Your task to perform on an android device: Go to settings Image 0: 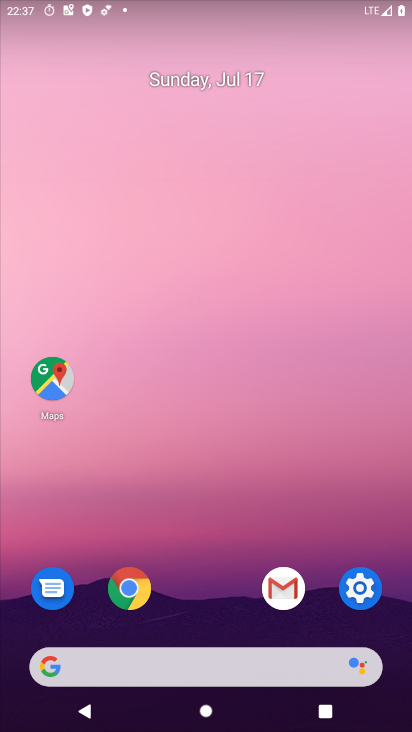
Step 0: click (365, 594)
Your task to perform on an android device: Go to settings Image 1: 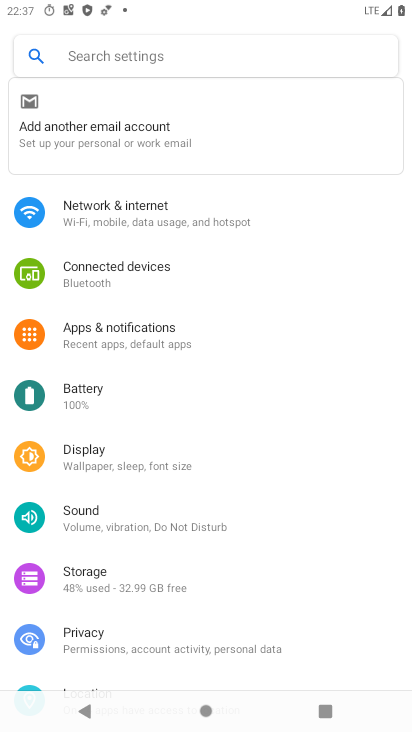
Step 1: click (130, 204)
Your task to perform on an android device: Go to settings Image 2: 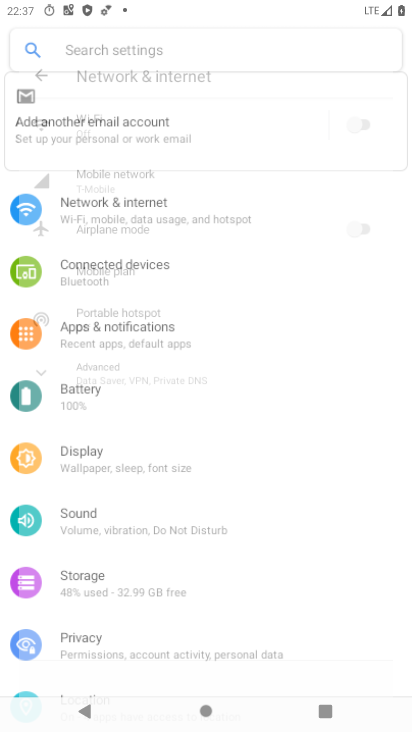
Step 2: click (89, 216)
Your task to perform on an android device: Go to settings Image 3: 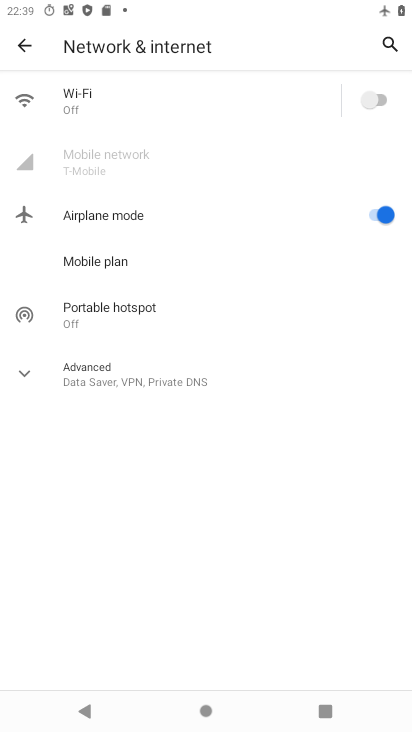
Step 3: task complete